Your task to perform on an android device: delete the emails in spam in the gmail app Image 0: 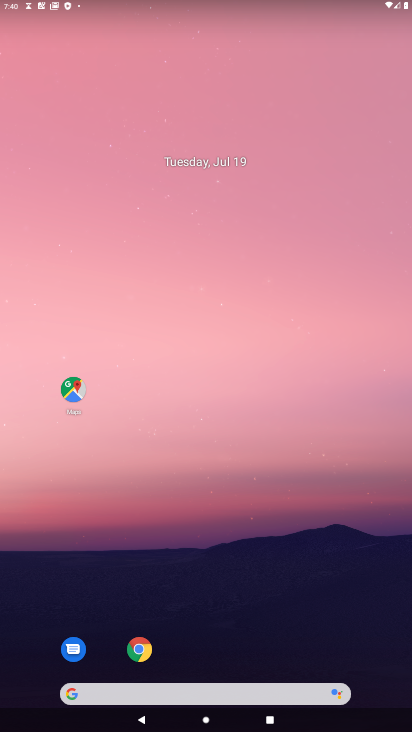
Step 0: drag from (210, 691) to (254, 158)
Your task to perform on an android device: delete the emails in spam in the gmail app Image 1: 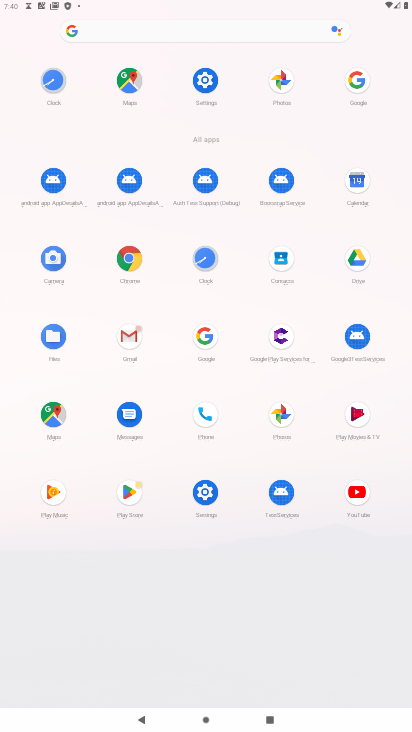
Step 1: click (129, 334)
Your task to perform on an android device: delete the emails in spam in the gmail app Image 2: 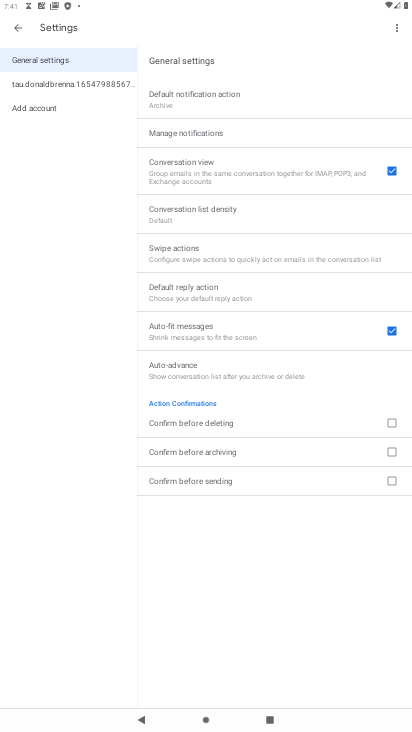
Step 2: press back button
Your task to perform on an android device: delete the emails in spam in the gmail app Image 3: 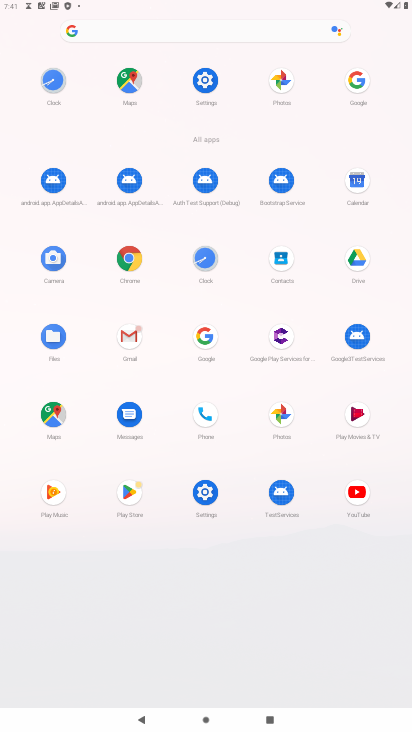
Step 3: click (127, 335)
Your task to perform on an android device: delete the emails in spam in the gmail app Image 4: 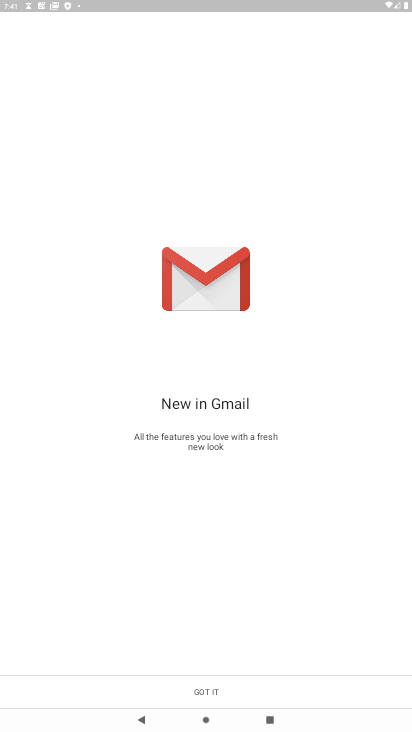
Step 4: click (209, 691)
Your task to perform on an android device: delete the emails in spam in the gmail app Image 5: 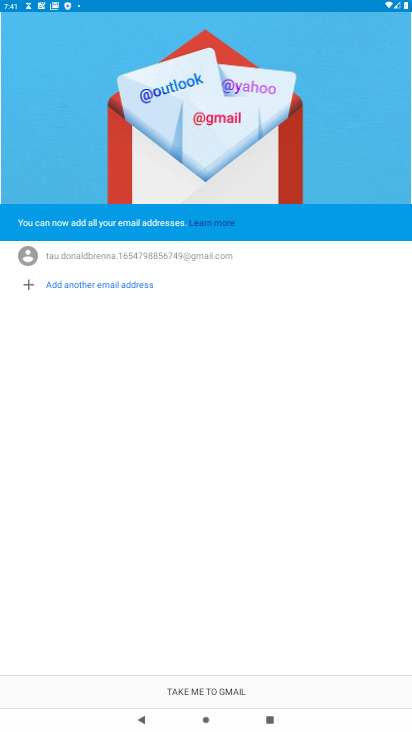
Step 5: click (209, 691)
Your task to perform on an android device: delete the emails in spam in the gmail app Image 6: 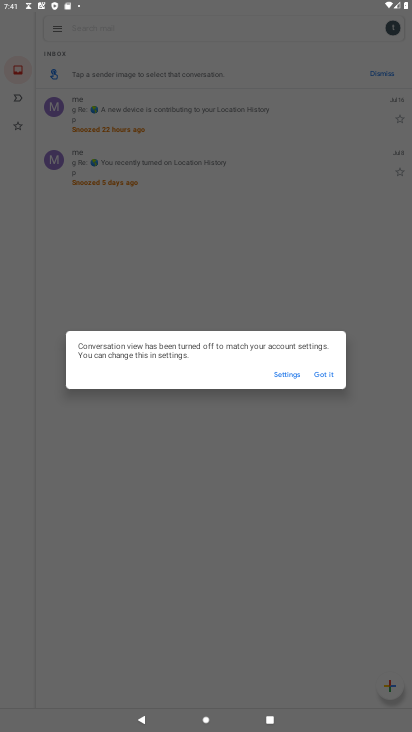
Step 6: click (322, 379)
Your task to perform on an android device: delete the emails in spam in the gmail app Image 7: 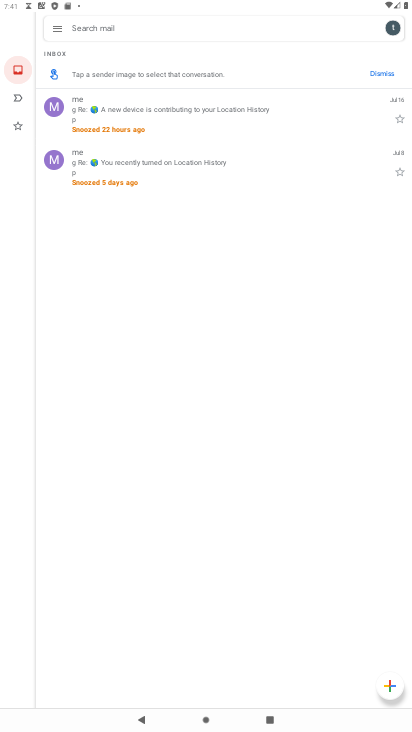
Step 7: click (57, 27)
Your task to perform on an android device: delete the emails in spam in the gmail app Image 8: 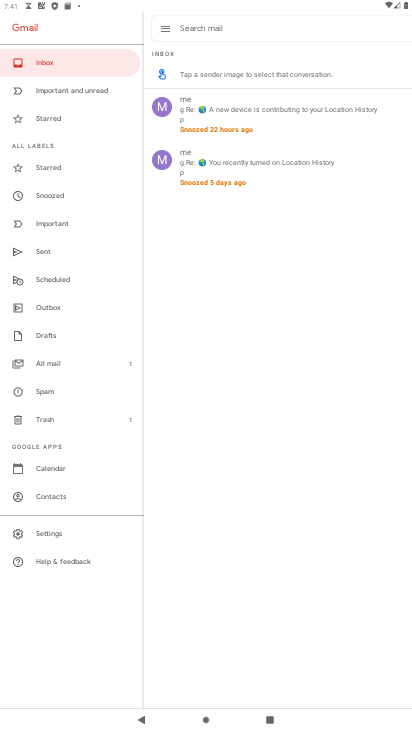
Step 8: click (44, 391)
Your task to perform on an android device: delete the emails in spam in the gmail app Image 9: 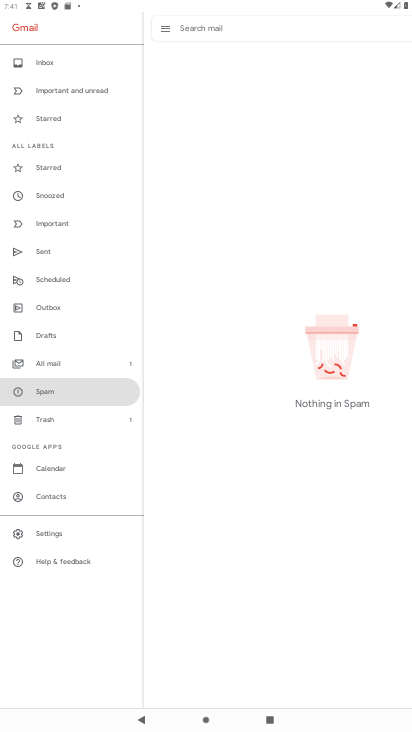
Step 9: task complete